Your task to perform on an android device: Open ESPN.com Image 0: 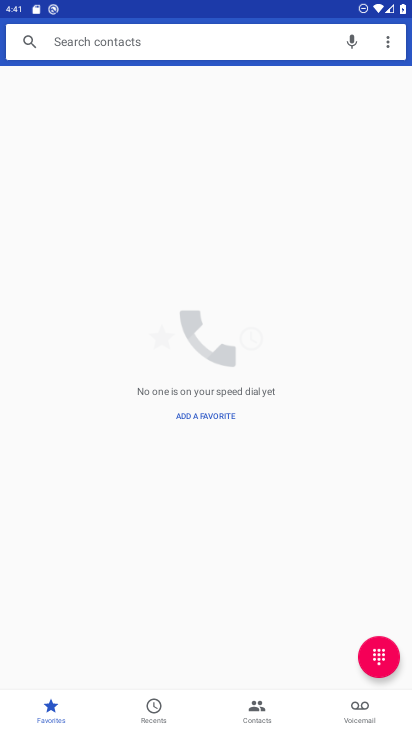
Step 0: press home button
Your task to perform on an android device: Open ESPN.com Image 1: 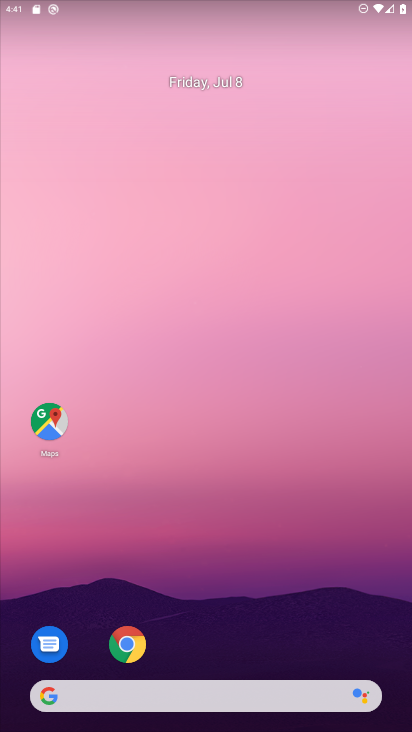
Step 1: drag from (297, 567) to (289, 45)
Your task to perform on an android device: Open ESPN.com Image 2: 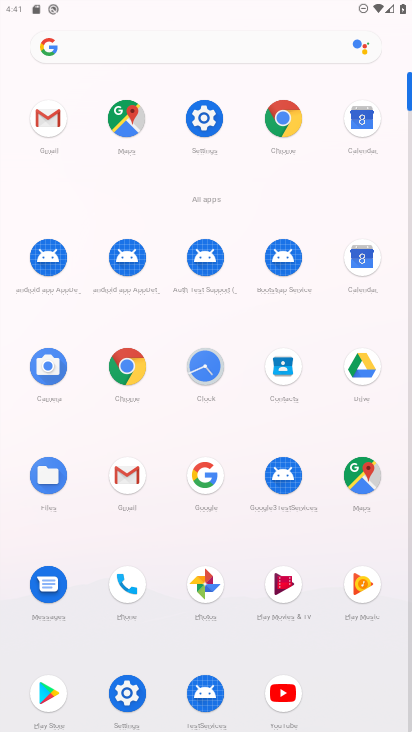
Step 2: click (290, 111)
Your task to perform on an android device: Open ESPN.com Image 3: 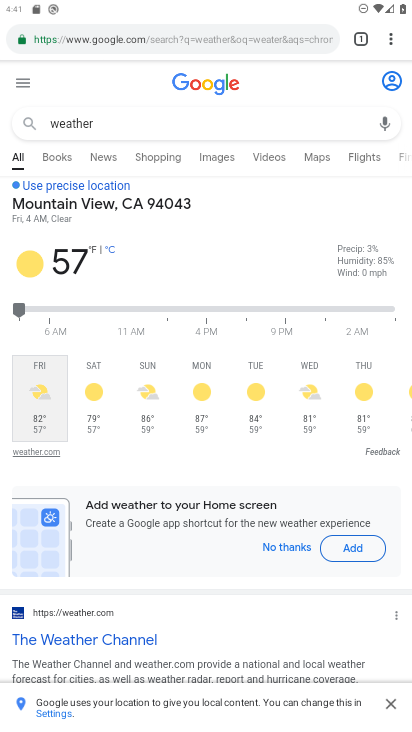
Step 3: click (222, 42)
Your task to perform on an android device: Open ESPN.com Image 4: 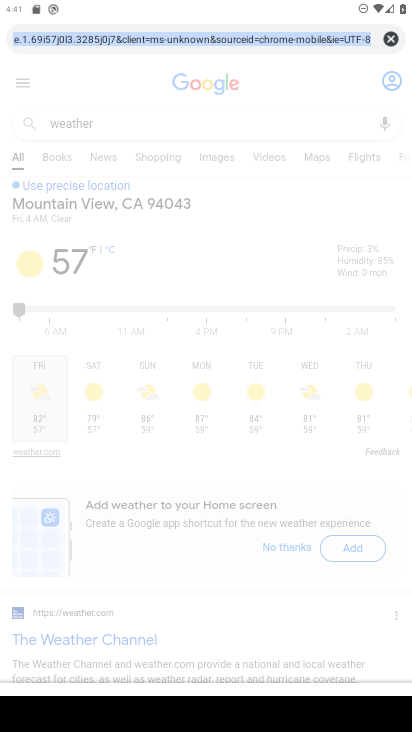
Step 4: type "espn.com"
Your task to perform on an android device: Open ESPN.com Image 5: 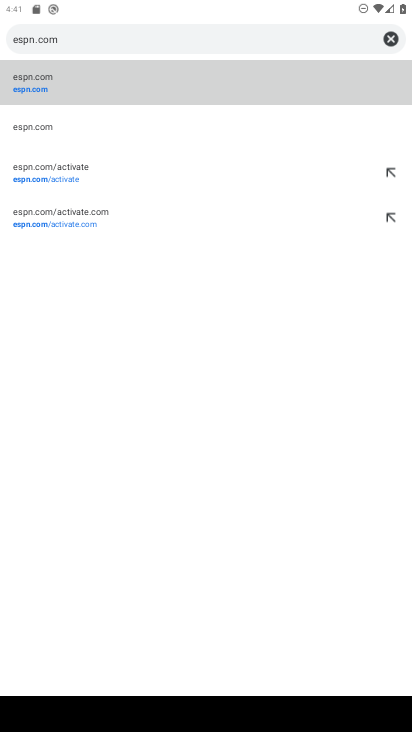
Step 5: click (19, 80)
Your task to perform on an android device: Open ESPN.com Image 6: 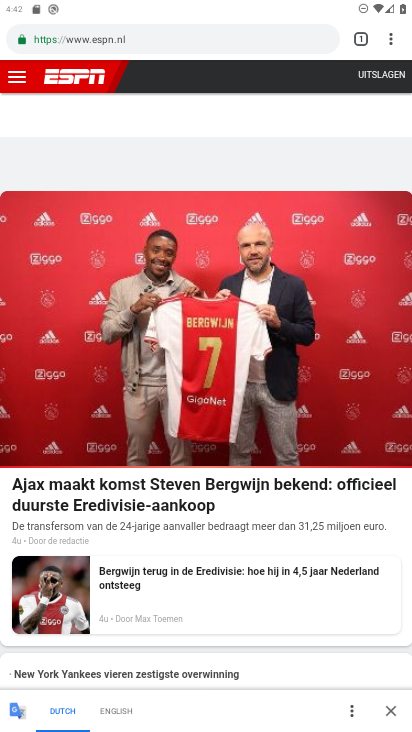
Step 6: task complete